Your task to perform on an android device: Open Amazon Image 0: 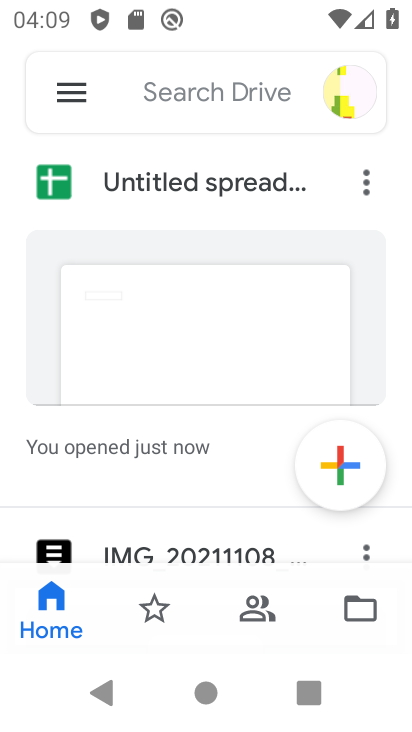
Step 0: press home button
Your task to perform on an android device: Open Amazon Image 1: 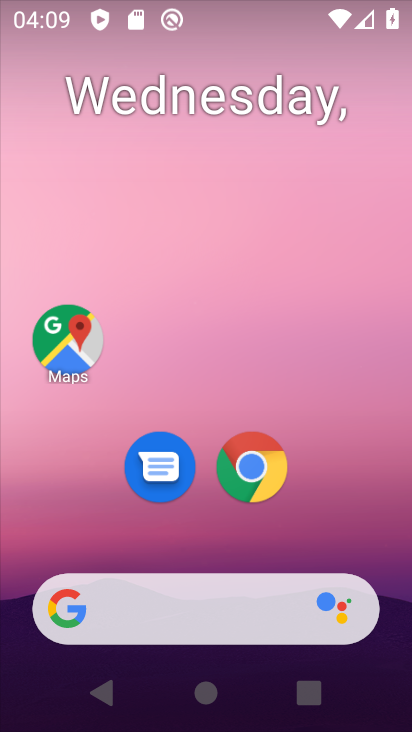
Step 1: click (252, 469)
Your task to perform on an android device: Open Amazon Image 2: 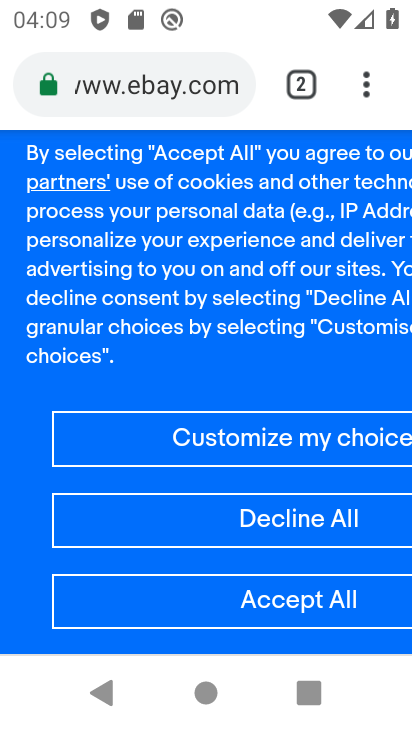
Step 2: click (363, 89)
Your task to perform on an android device: Open Amazon Image 3: 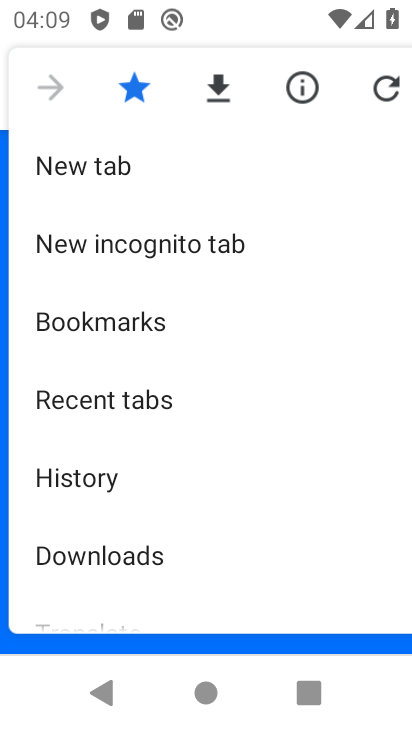
Step 3: click (69, 168)
Your task to perform on an android device: Open Amazon Image 4: 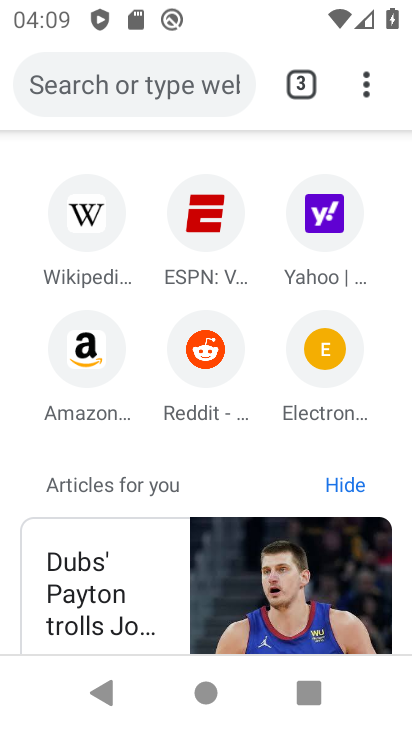
Step 4: click (87, 348)
Your task to perform on an android device: Open Amazon Image 5: 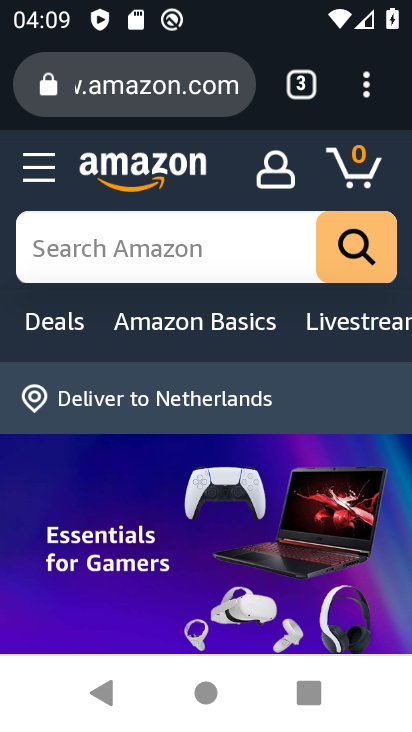
Step 5: task complete